Your task to perform on an android device: check out phone information Image 0: 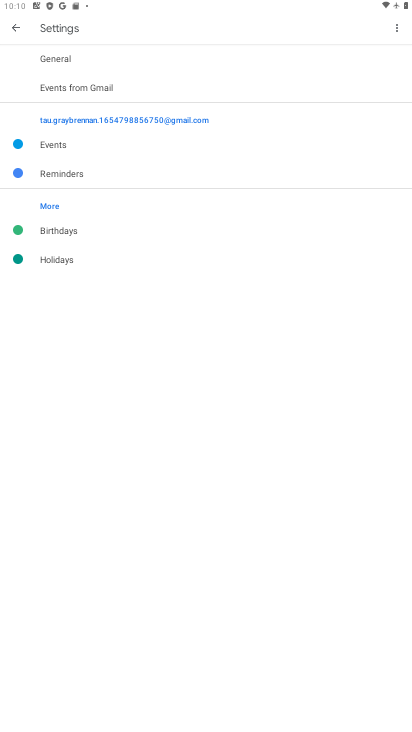
Step 0: task complete